Your task to perform on an android device: Open Yahoo.com Image 0: 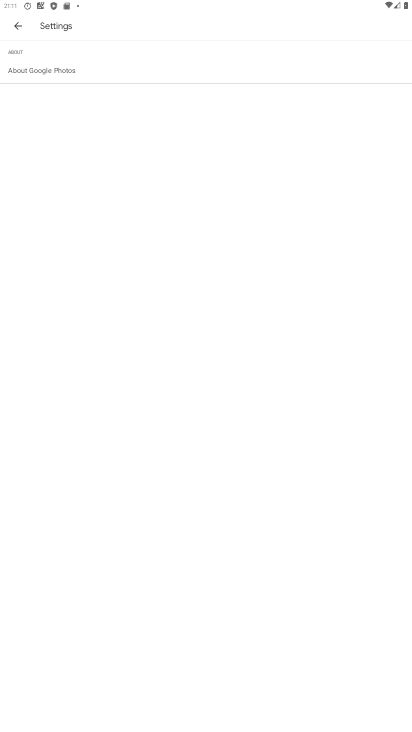
Step 0: press home button
Your task to perform on an android device: Open Yahoo.com Image 1: 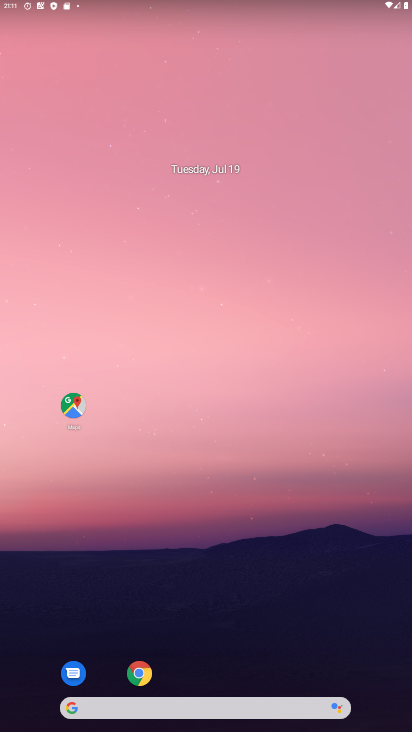
Step 1: click (139, 672)
Your task to perform on an android device: Open Yahoo.com Image 2: 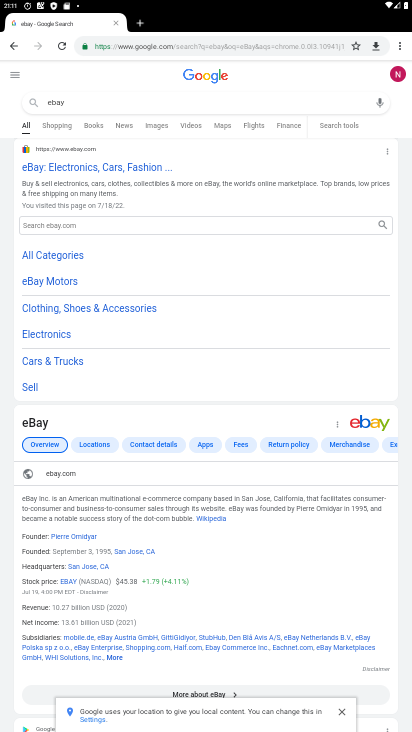
Step 2: click (172, 43)
Your task to perform on an android device: Open Yahoo.com Image 3: 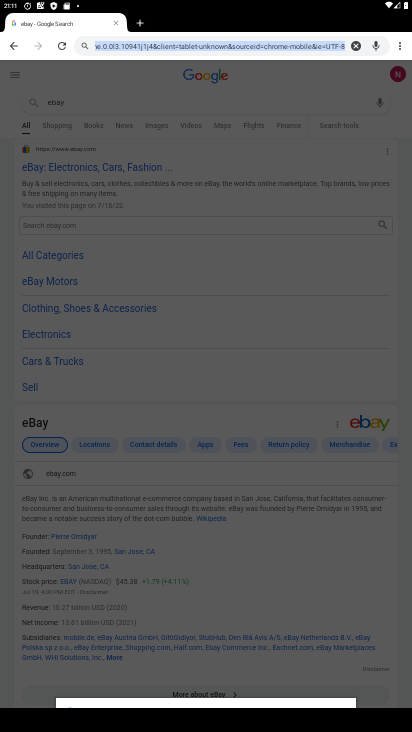
Step 3: type "yahoo.com"
Your task to perform on an android device: Open Yahoo.com Image 4: 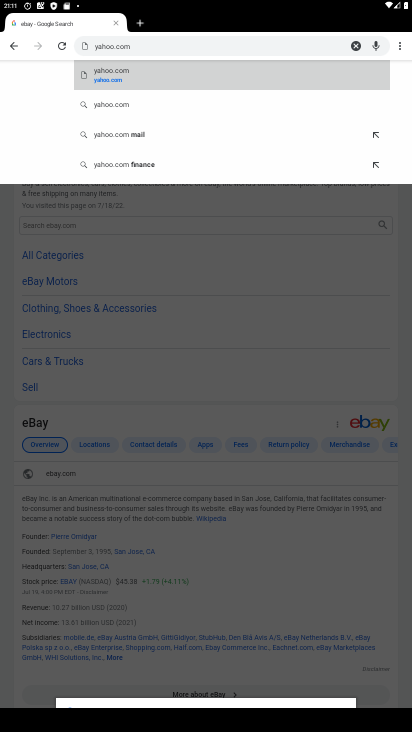
Step 4: click (142, 79)
Your task to perform on an android device: Open Yahoo.com Image 5: 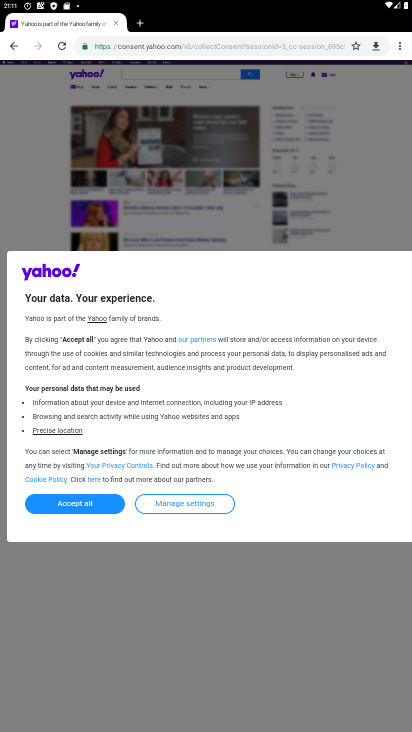
Step 5: task complete